Your task to perform on an android device: turn pop-ups off in chrome Image 0: 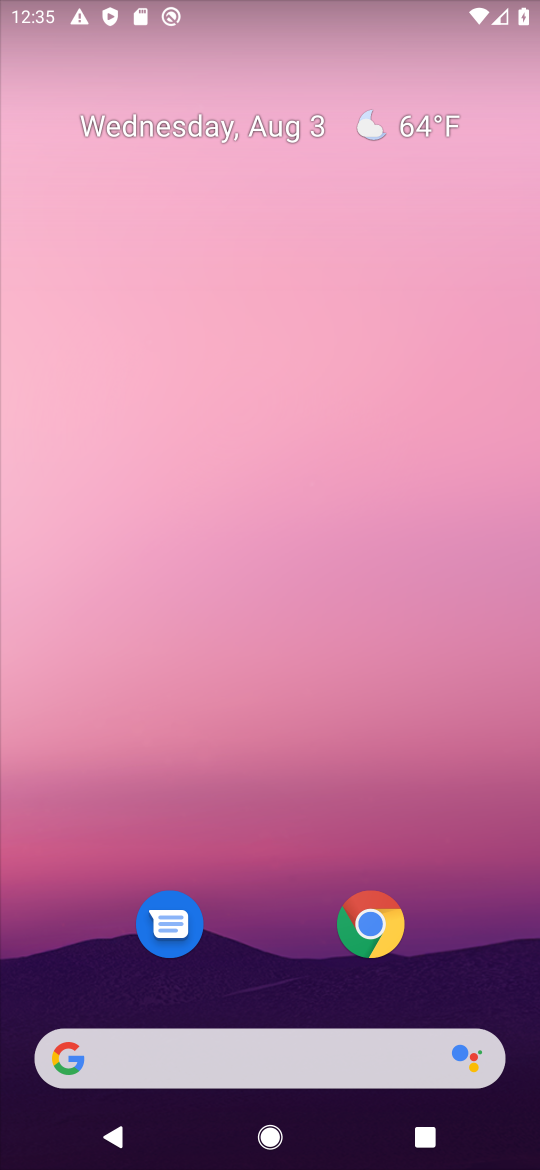
Step 0: click (375, 944)
Your task to perform on an android device: turn pop-ups off in chrome Image 1: 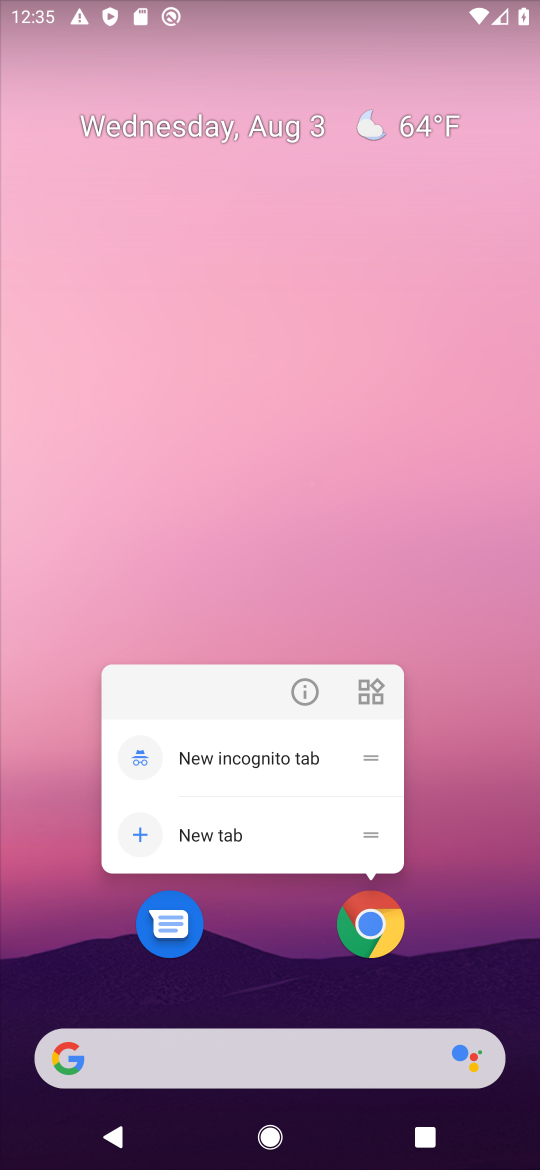
Step 1: click (381, 934)
Your task to perform on an android device: turn pop-ups off in chrome Image 2: 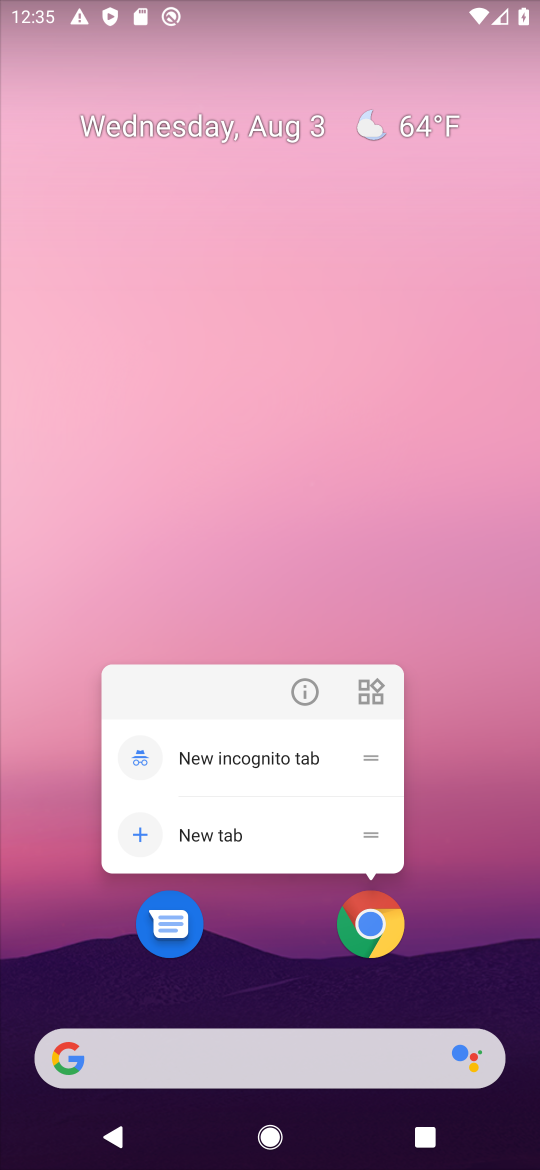
Step 2: click (365, 917)
Your task to perform on an android device: turn pop-ups off in chrome Image 3: 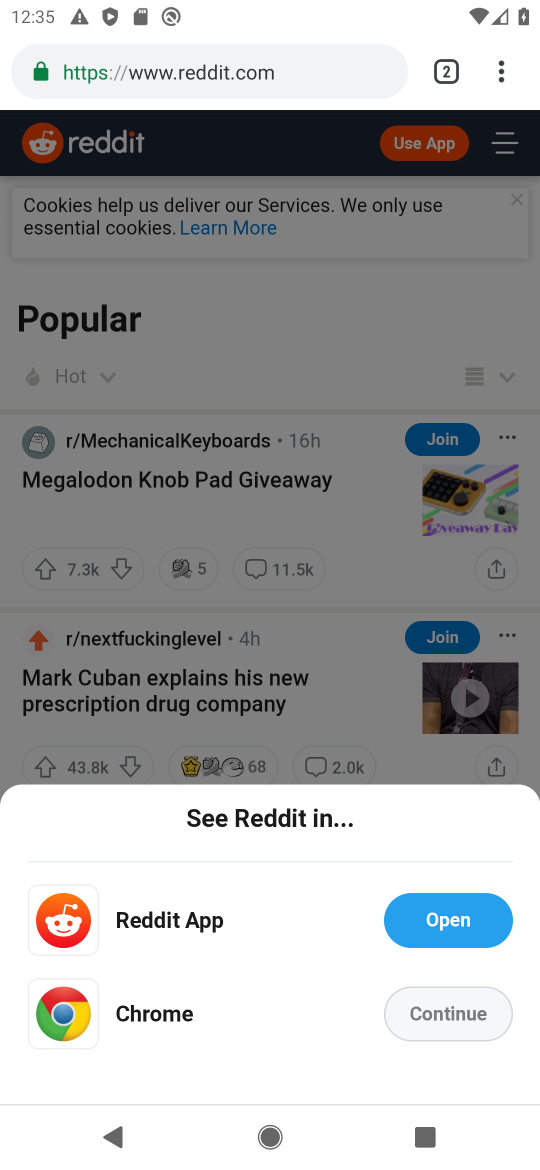
Step 3: drag from (505, 70) to (255, 861)
Your task to perform on an android device: turn pop-ups off in chrome Image 4: 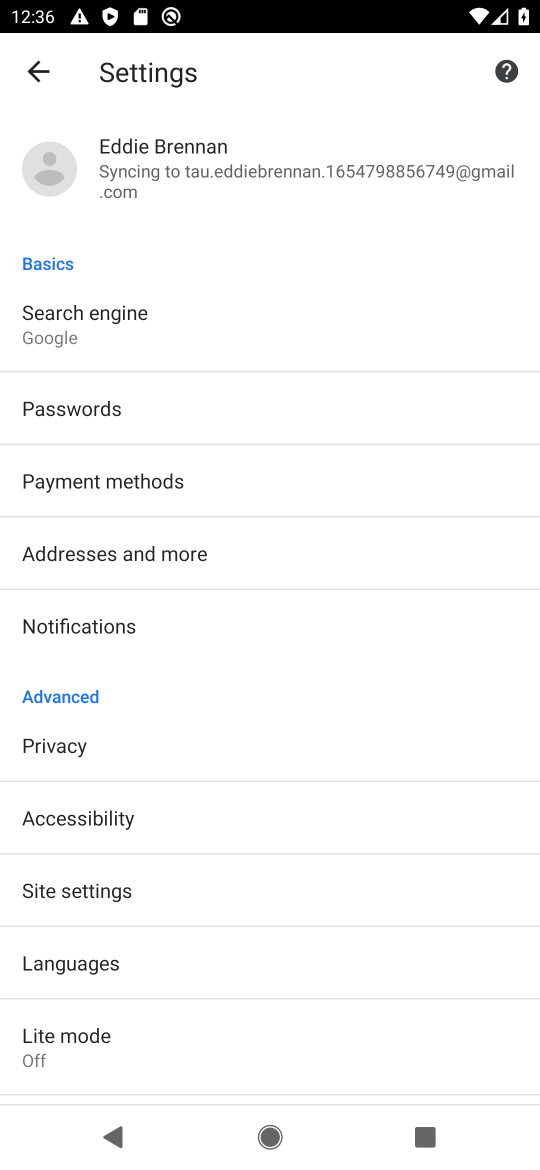
Step 4: click (111, 889)
Your task to perform on an android device: turn pop-ups off in chrome Image 5: 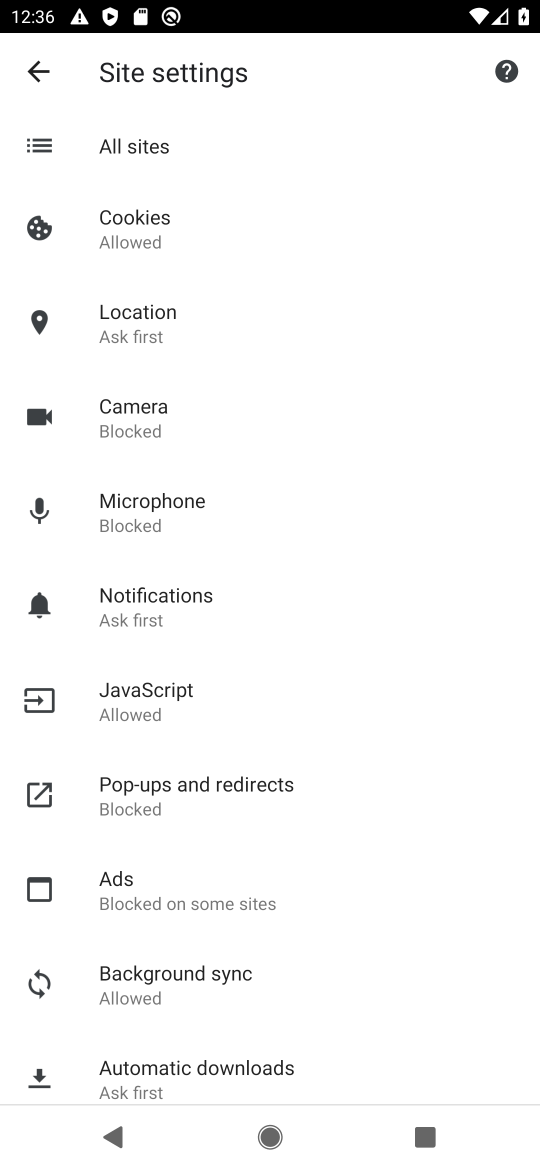
Step 5: click (170, 785)
Your task to perform on an android device: turn pop-ups off in chrome Image 6: 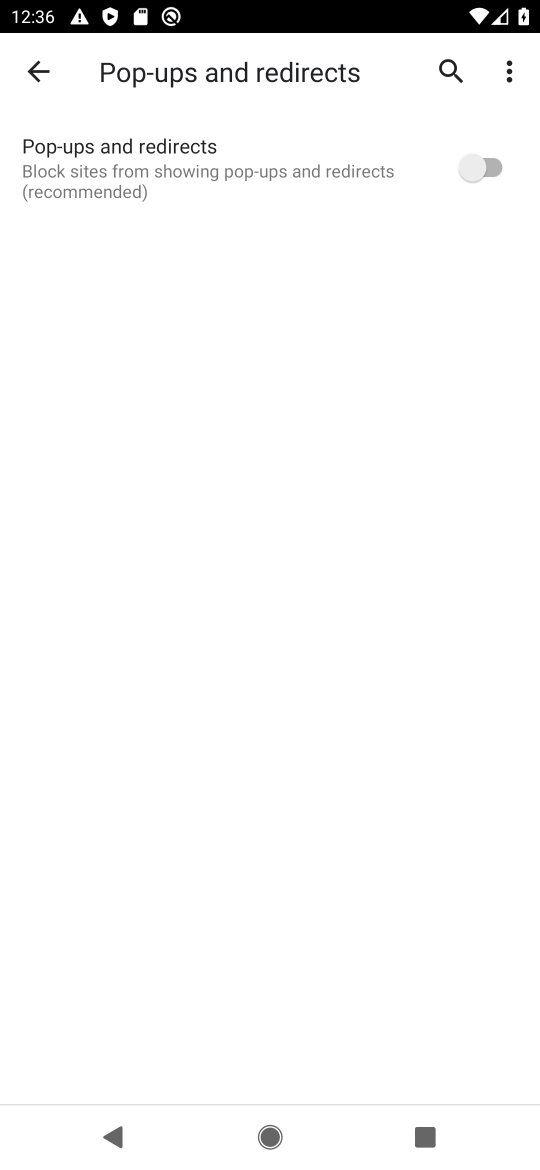
Step 6: task complete